Your task to perform on an android device: Open Wikipedia Image 0: 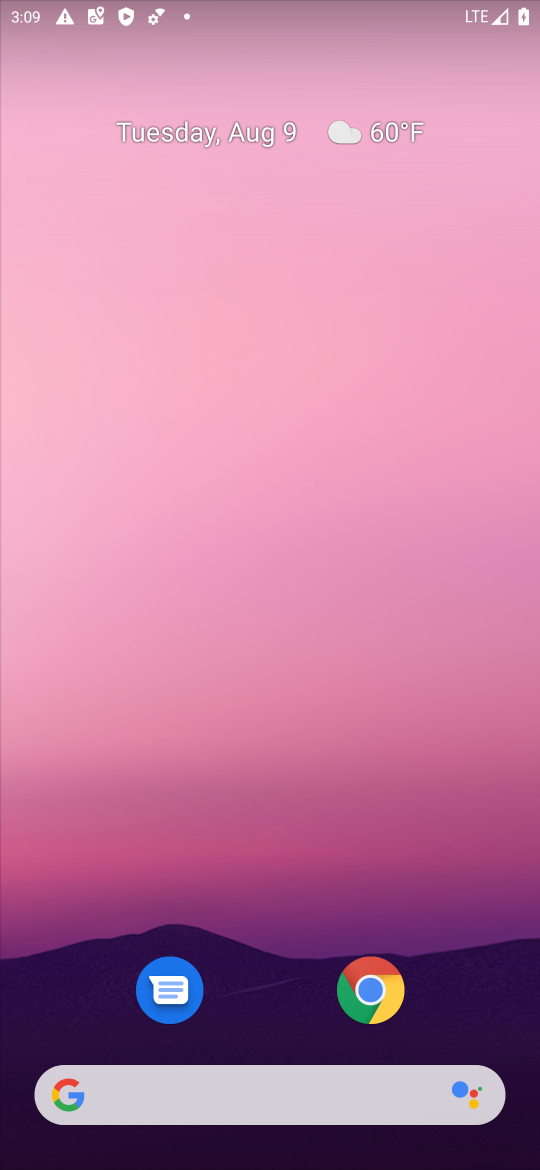
Step 0: drag from (176, 1079) to (491, 62)
Your task to perform on an android device: Open Wikipedia Image 1: 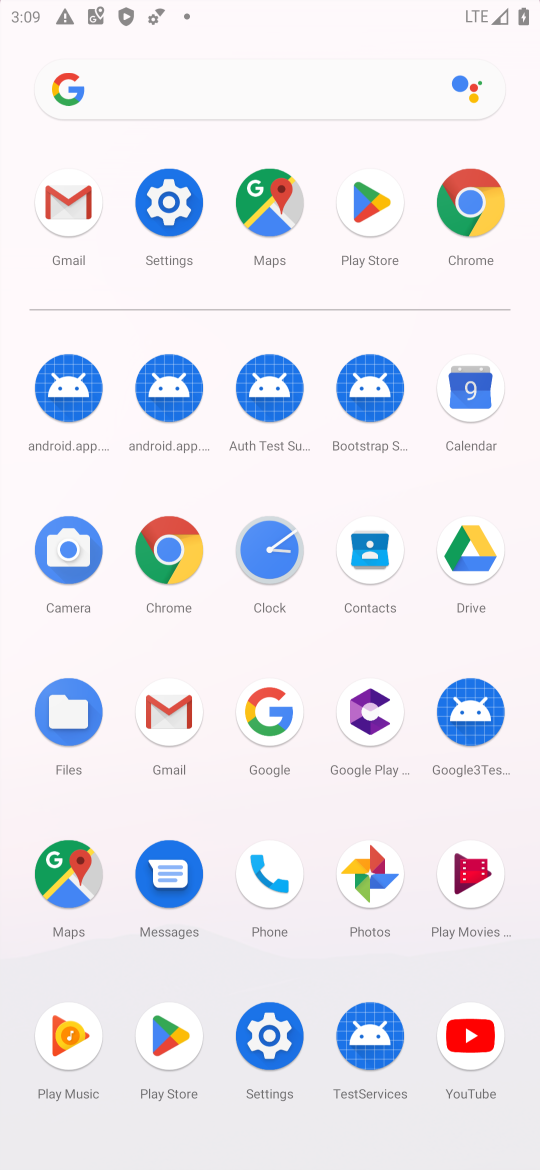
Step 1: click (491, 62)
Your task to perform on an android device: Open Wikipedia Image 2: 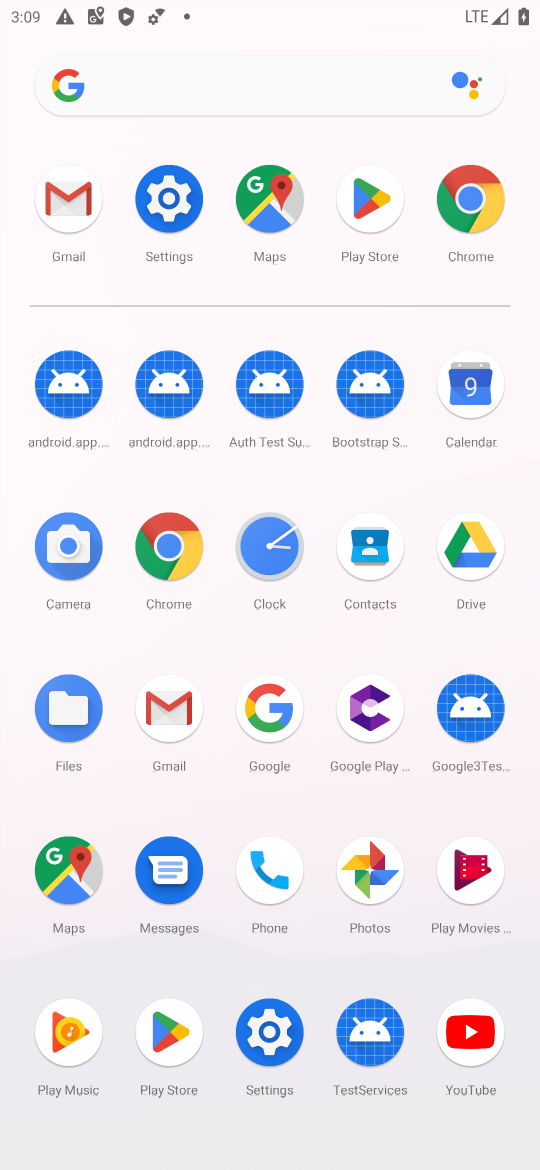
Step 2: click (182, 556)
Your task to perform on an android device: Open Wikipedia Image 3: 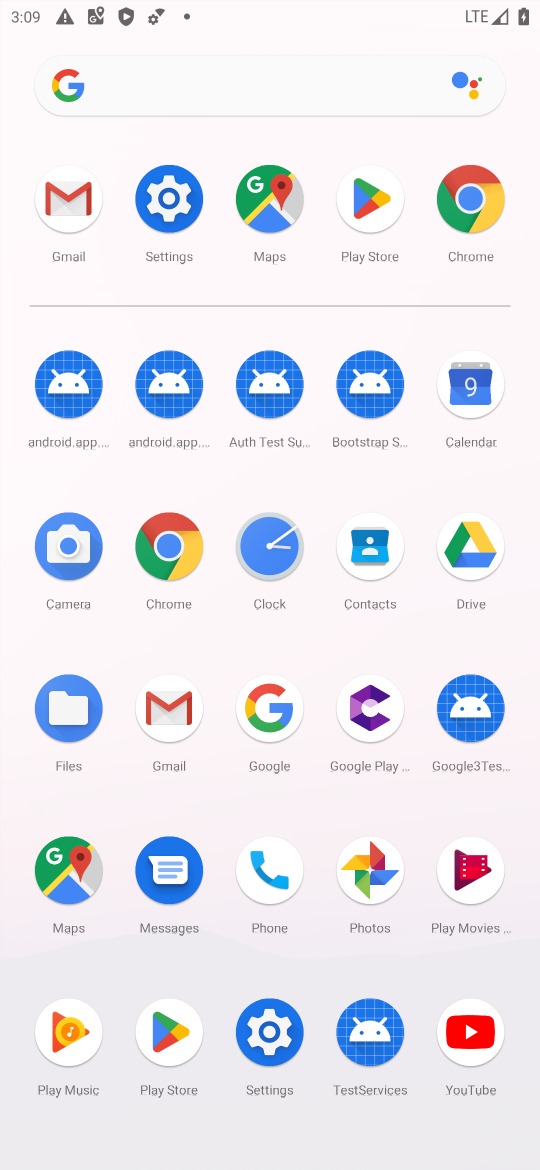
Step 3: click (160, 580)
Your task to perform on an android device: Open Wikipedia Image 4: 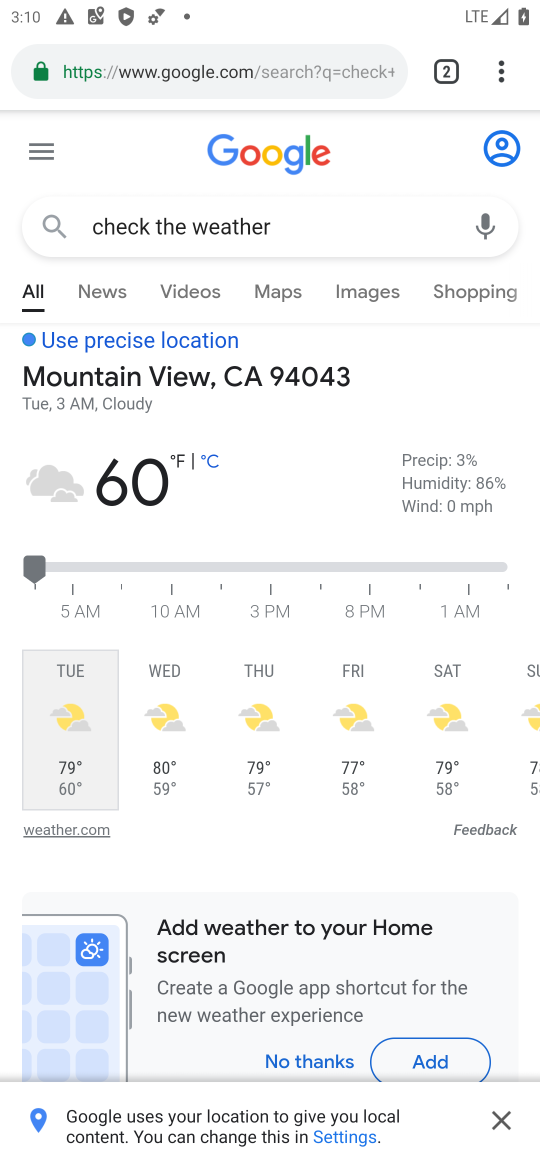
Step 4: click (394, 103)
Your task to perform on an android device: Open Wikipedia Image 5: 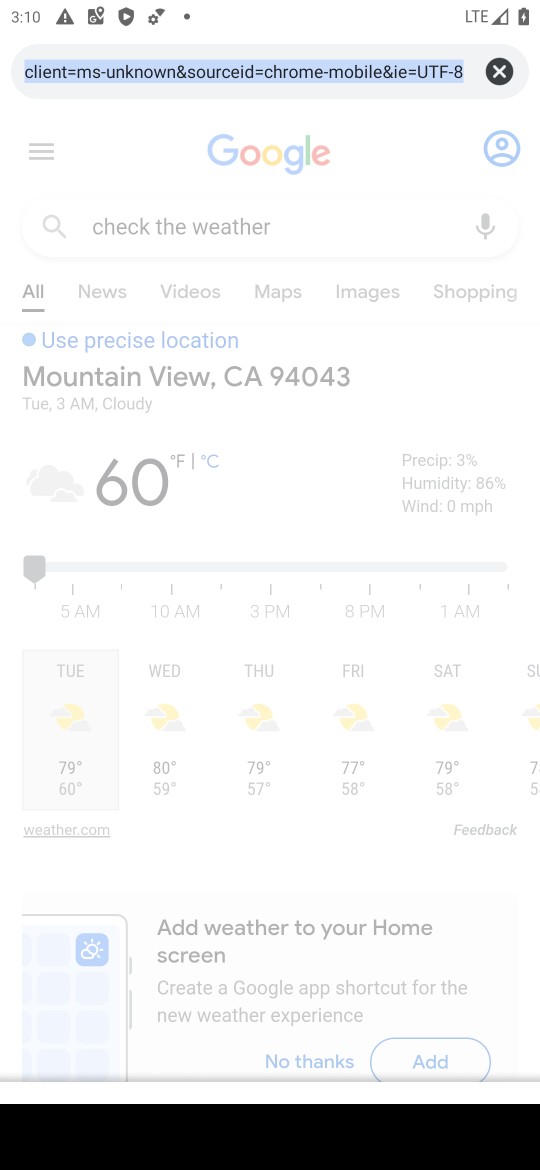
Step 5: click (394, 100)
Your task to perform on an android device: Open Wikipedia Image 6: 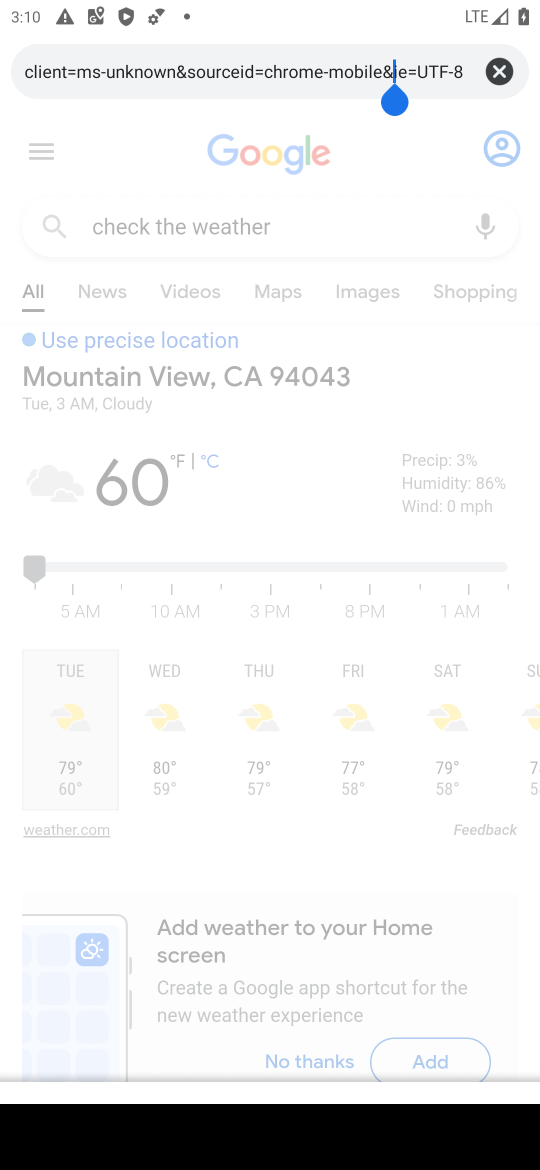
Step 6: press home button
Your task to perform on an android device: Open Wikipedia Image 7: 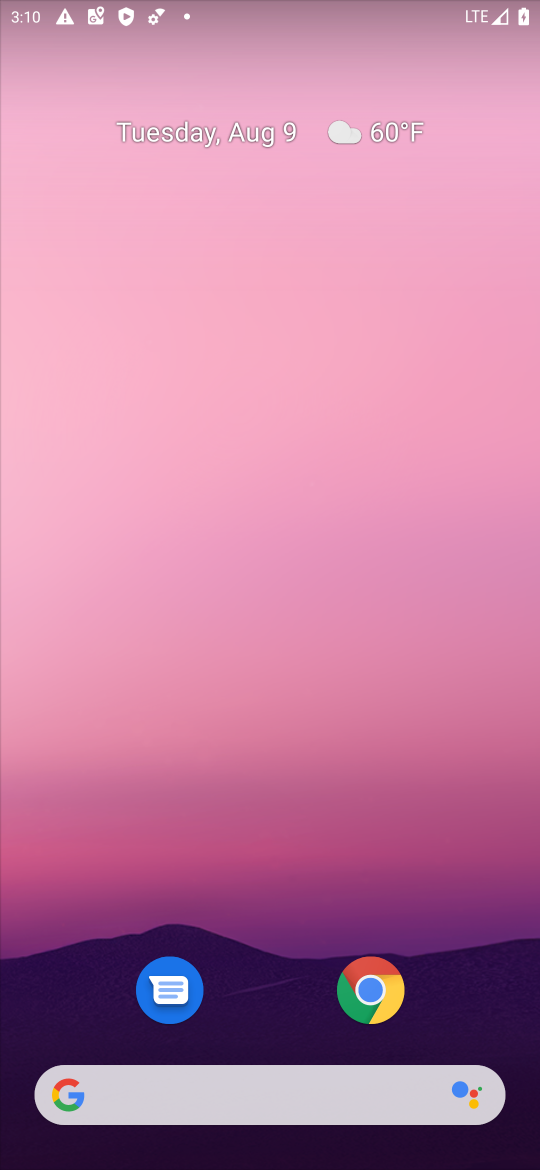
Step 7: click (322, 1065)
Your task to perform on an android device: Open Wikipedia Image 8: 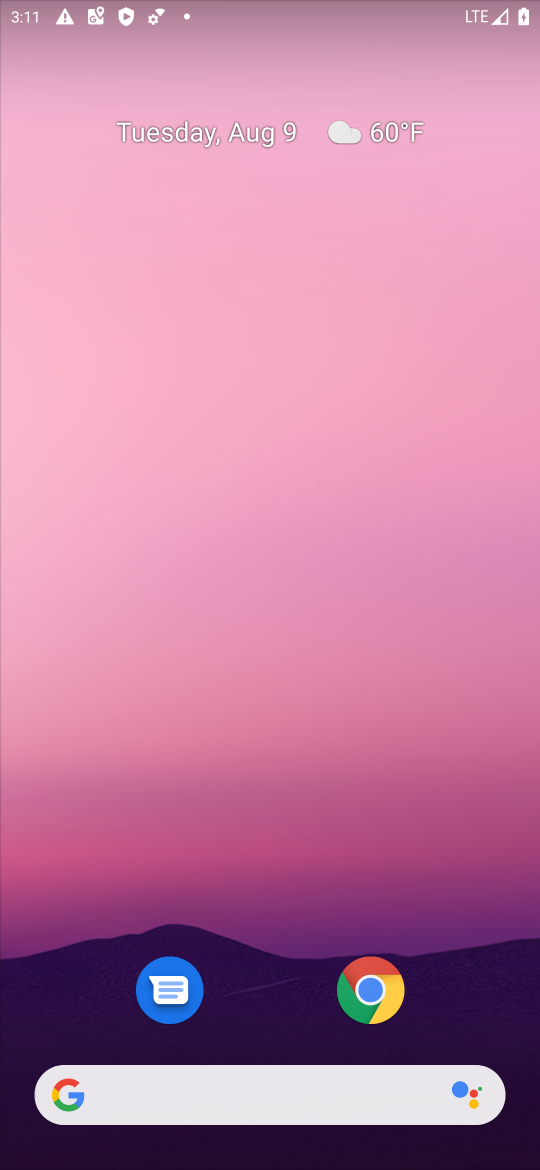
Step 8: drag from (322, 1065) to (277, 226)
Your task to perform on an android device: Open Wikipedia Image 9: 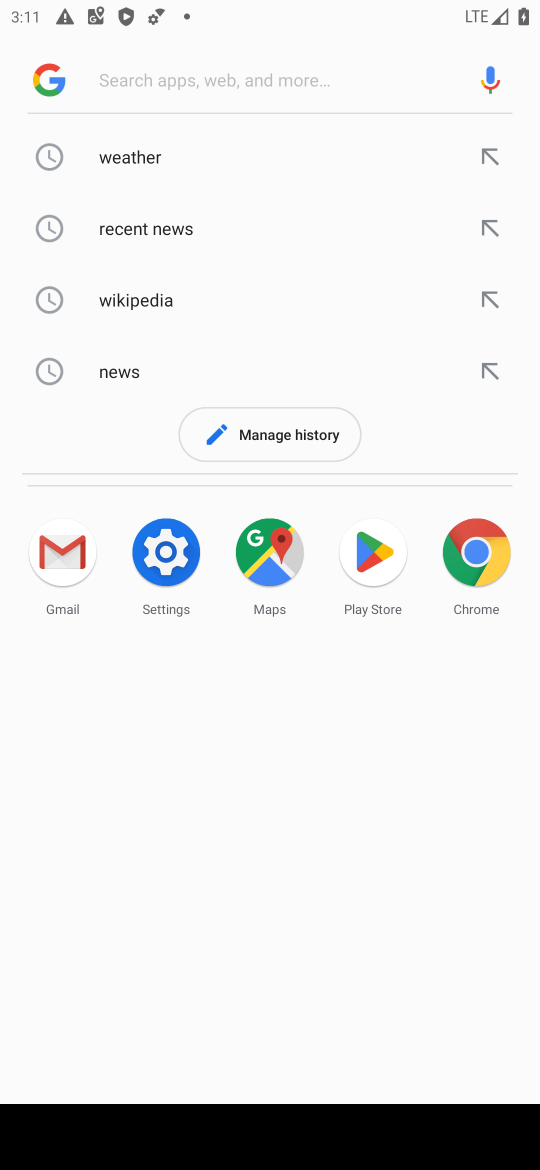
Step 9: click (176, 298)
Your task to perform on an android device: Open Wikipedia Image 10: 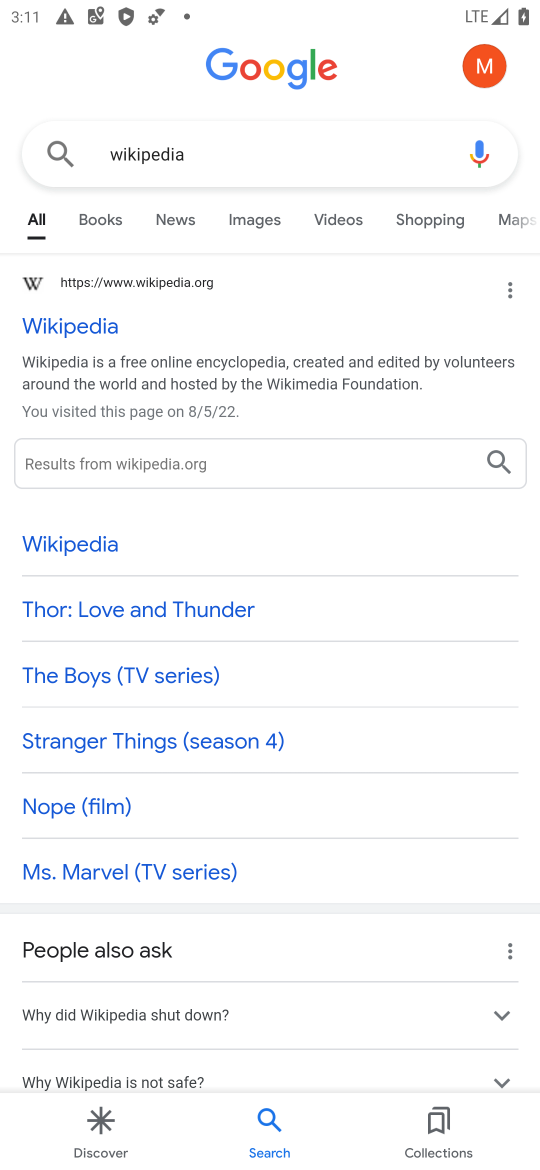
Step 10: task complete